Your task to perform on an android device: Show the shopping cart on amazon. Add energizer triple a to the cart on amazon, then select checkout. Image 0: 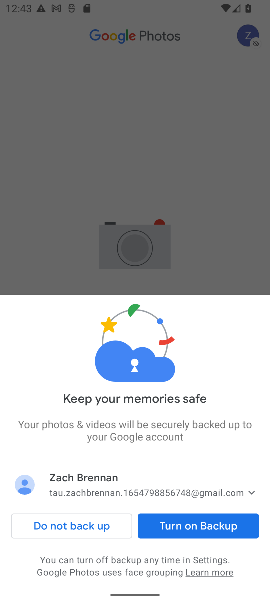
Step 0: press home button
Your task to perform on an android device: Show the shopping cart on amazon. Add energizer triple a to the cart on amazon, then select checkout. Image 1: 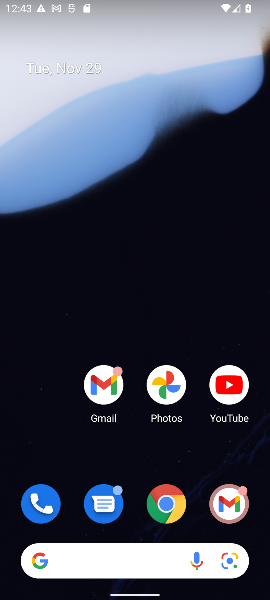
Step 1: click (167, 508)
Your task to perform on an android device: Show the shopping cart on amazon. Add energizer triple a to the cart on amazon, then select checkout. Image 2: 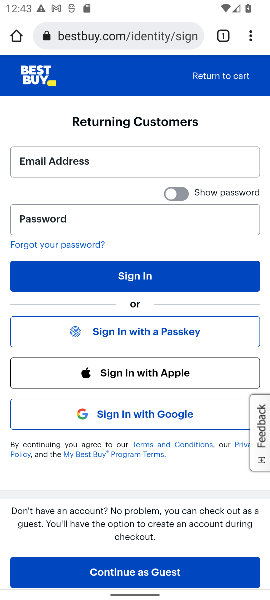
Step 2: click (120, 31)
Your task to perform on an android device: Show the shopping cart on amazon. Add energizer triple a to the cart on amazon, then select checkout. Image 3: 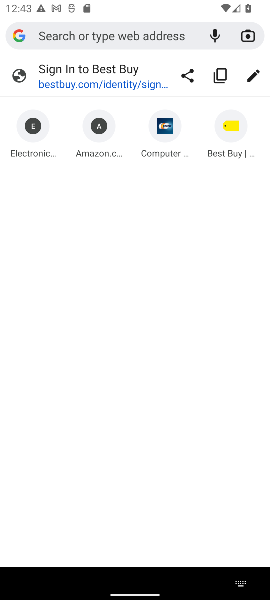
Step 3: click (92, 147)
Your task to perform on an android device: Show the shopping cart on amazon. Add energizer triple a to the cart on amazon, then select checkout. Image 4: 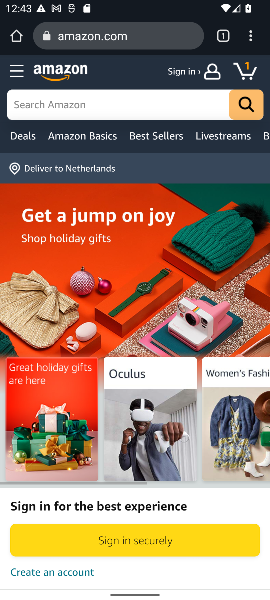
Step 4: click (246, 67)
Your task to perform on an android device: Show the shopping cart on amazon. Add energizer triple a to the cart on amazon, then select checkout. Image 5: 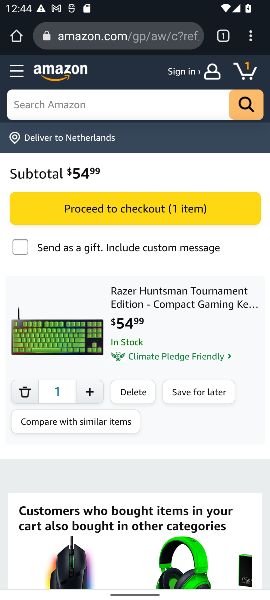
Step 5: click (27, 107)
Your task to perform on an android device: Show the shopping cart on amazon. Add energizer triple a to the cart on amazon, then select checkout. Image 6: 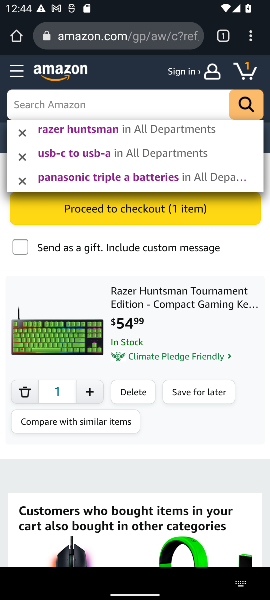
Step 6: type "energizer triple a"
Your task to perform on an android device: Show the shopping cart on amazon. Add energizer triple a to the cart on amazon, then select checkout. Image 7: 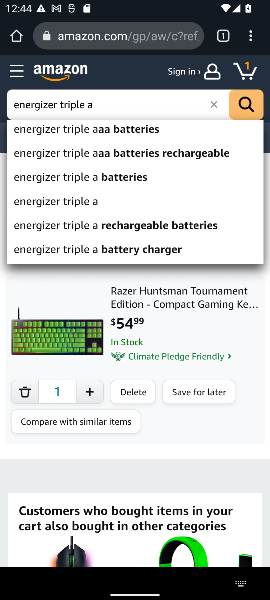
Step 7: click (59, 132)
Your task to perform on an android device: Show the shopping cart on amazon. Add energizer triple a to the cart on amazon, then select checkout. Image 8: 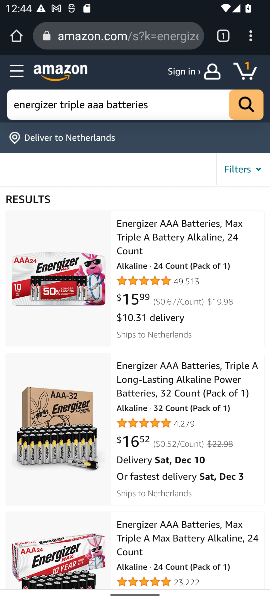
Step 8: click (138, 256)
Your task to perform on an android device: Show the shopping cart on amazon. Add energizer triple a to the cart on amazon, then select checkout. Image 9: 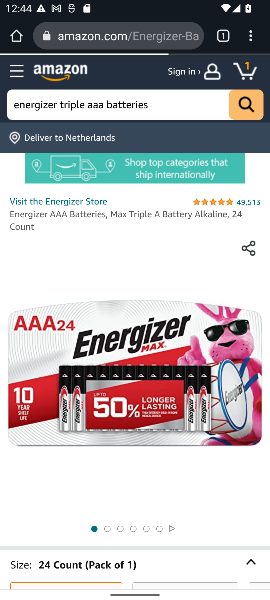
Step 9: drag from (135, 445) to (122, 132)
Your task to perform on an android device: Show the shopping cart on amazon. Add energizer triple a to the cart on amazon, then select checkout. Image 10: 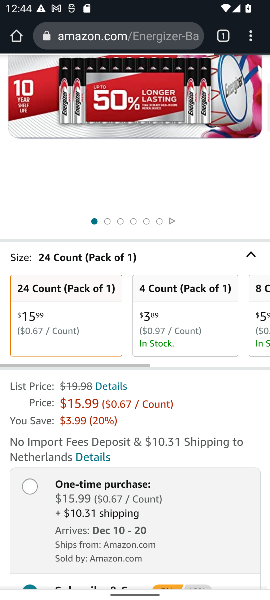
Step 10: drag from (123, 446) to (114, 213)
Your task to perform on an android device: Show the shopping cart on amazon. Add energizer triple a to the cart on amazon, then select checkout. Image 11: 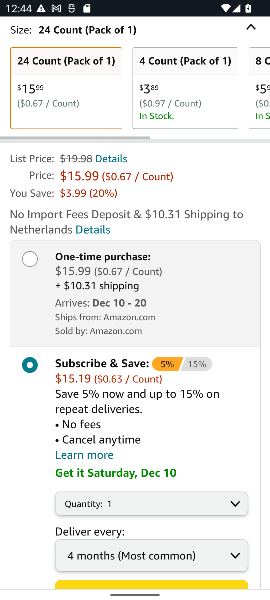
Step 11: click (36, 258)
Your task to perform on an android device: Show the shopping cart on amazon. Add energizer triple a to the cart on amazon, then select checkout. Image 12: 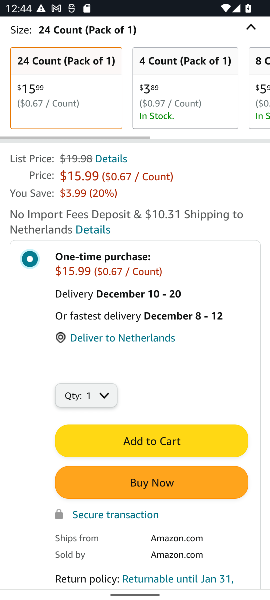
Step 12: click (136, 448)
Your task to perform on an android device: Show the shopping cart on amazon. Add energizer triple a to the cart on amazon, then select checkout. Image 13: 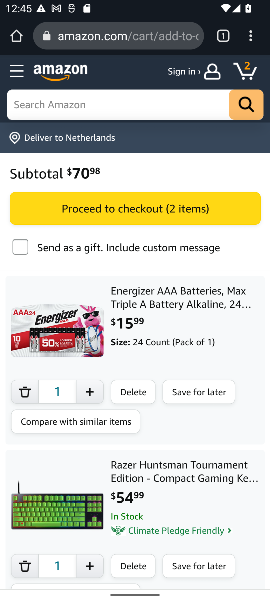
Step 13: click (132, 212)
Your task to perform on an android device: Show the shopping cart on amazon. Add energizer triple a to the cart on amazon, then select checkout. Image 14: 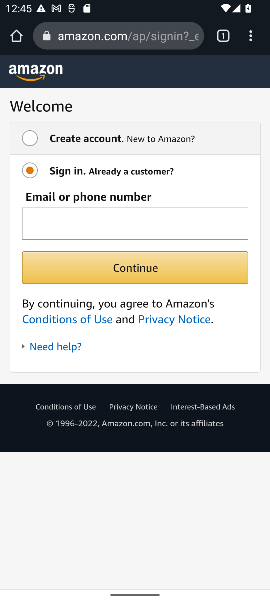
Step 14: task complete